Your task to perform on an android device: turn on bluetooth scan Image 0: 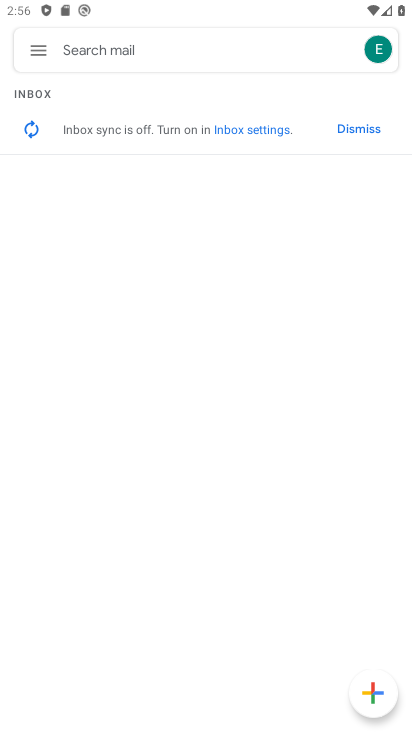
Step 0: press home button
Your task to perform on an android device: turn on bluetooth scan Image 1: 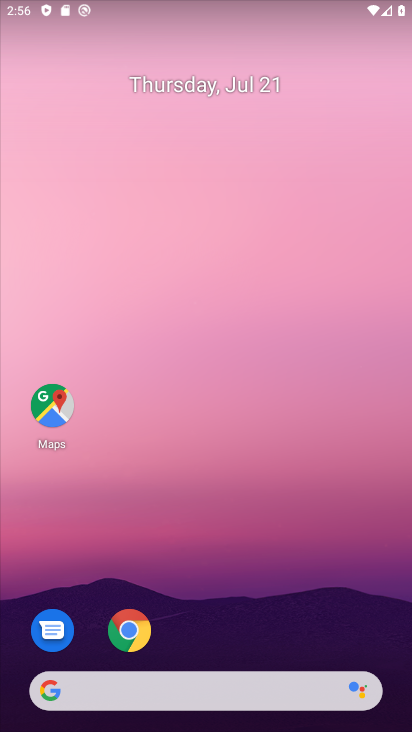
Step 1: drag from (226, 622) to (141, 74)
Your task to perform on an android device: turn on bluetooth scan Image 2: 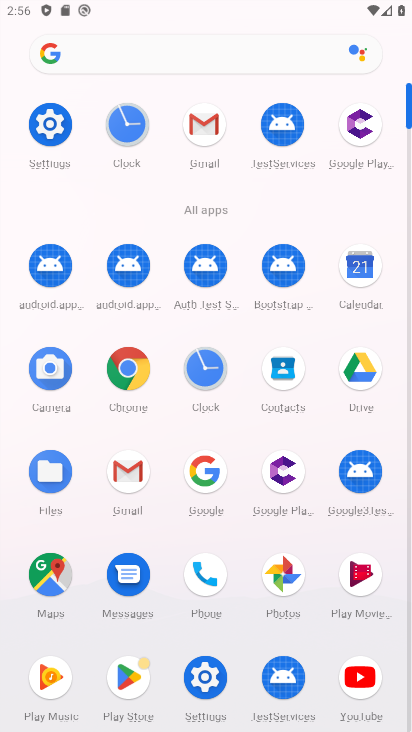
Step 2: click (29, 128)
Your task to perform on an android device: turn on bluetooth scan Image 3: 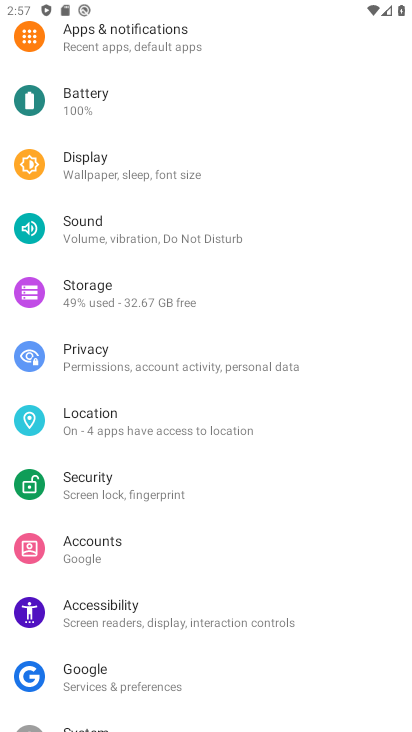
Step 3: click (90, 411)
Your task to perform on an android device: turn on bluetooth scan Image 4: 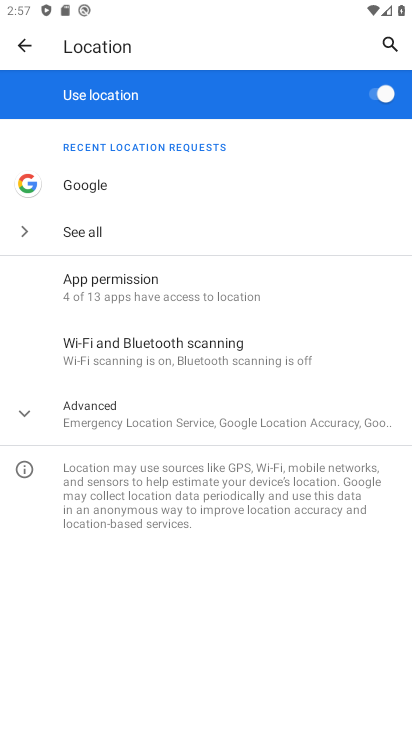
Step 4: click (202, 364)
Your task to perform on an android device: turn on bluetooth scan Image 5: 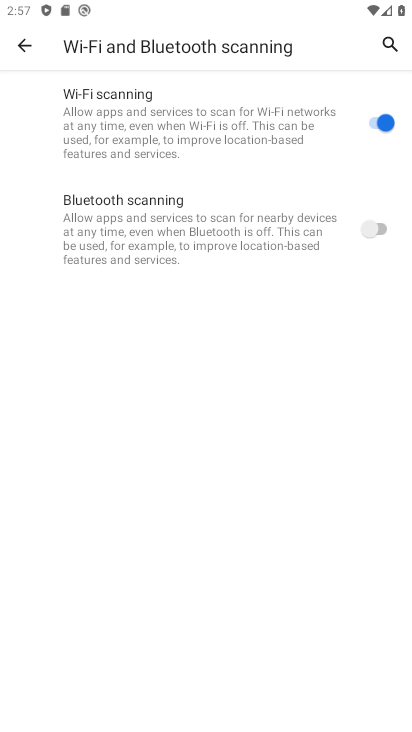
Step 5: click (391, 231)
Your task to perform on an android device: turn on bluetooth scan Image 6: 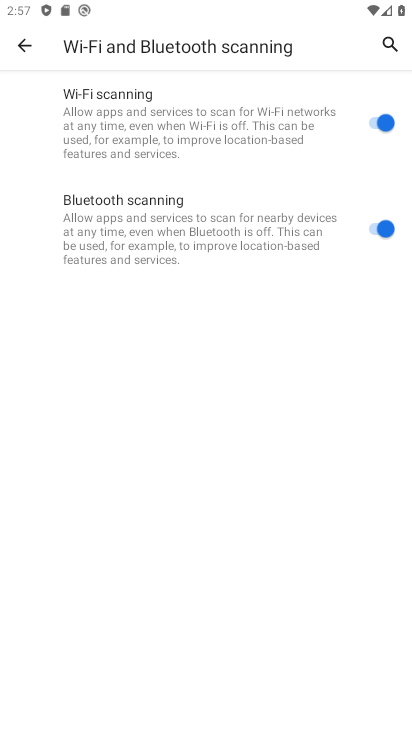
Step 6: task complete